Your task to perform on an android device: Open display settings Image 0: 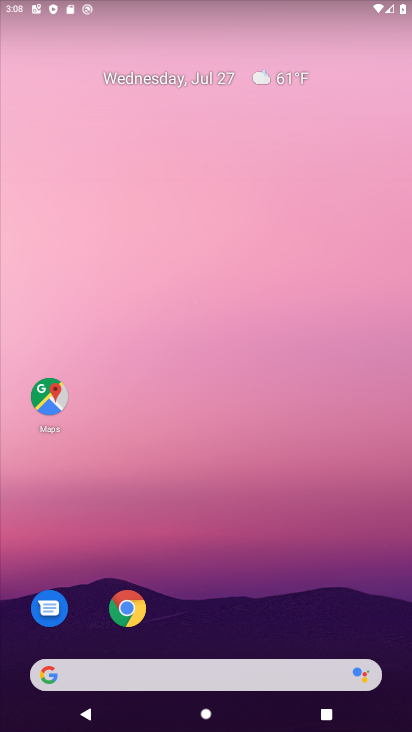
Step 0: drag from (209, 614) to (143, 17)
Your task to perform on an android device: Open display settings Image 1: 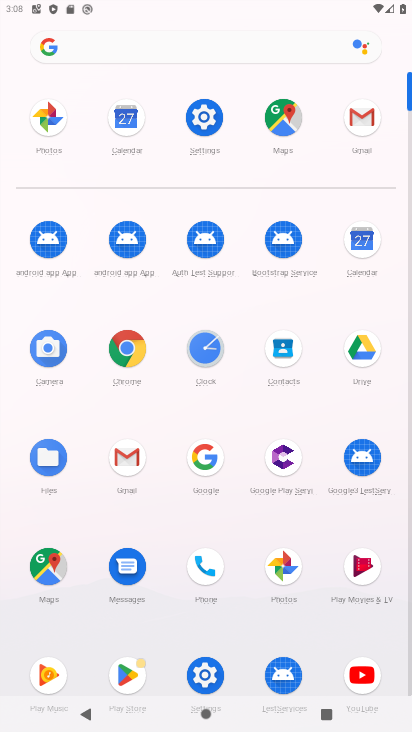
Step 1: click (200, 113)
Your task to perform on an android device: Open display settings Image 2: 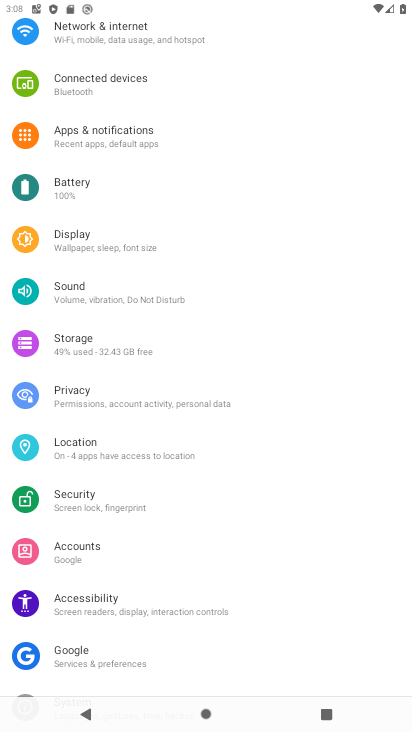
Step 2: click (81, 238)
Your task to perform on an android device: Open display settings Image 3: 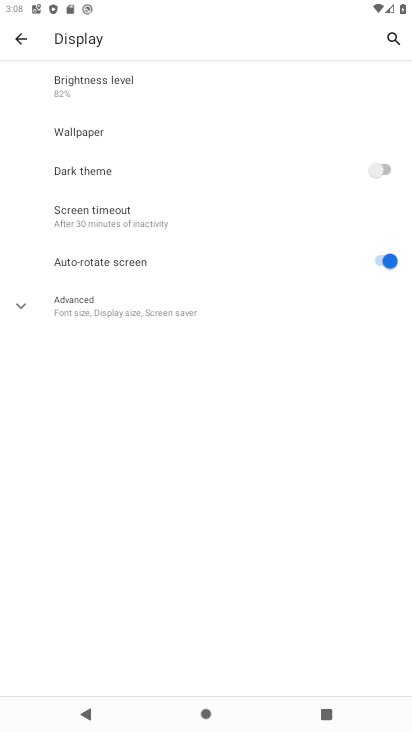
Step 3: task complete